Your task to perform on an android device: Turn on the flashlight Image 0: 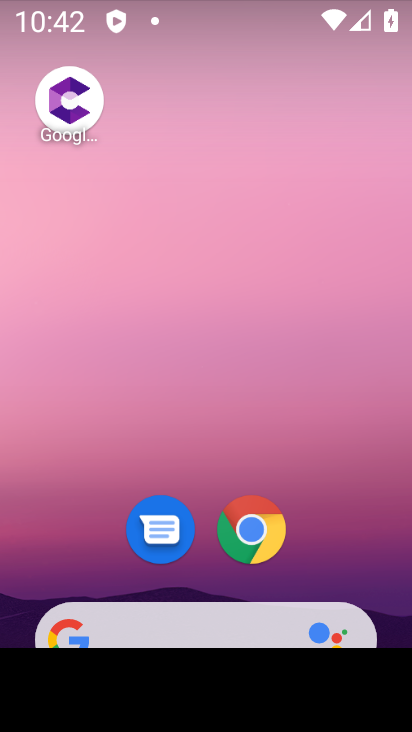
Step 0: drag from (244, 17) to (233, 459)
Your task to perform on an android device: Turn on the flashlight Image 1: 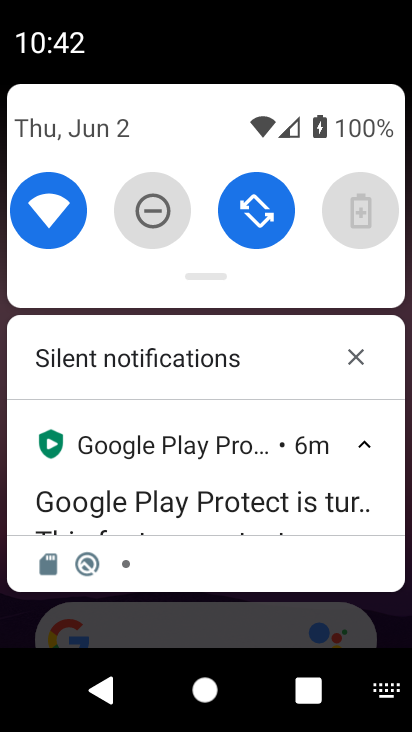
Step 1: drag from (205, 287) to (229, 536)
Your task to perform on an android device: Turn on the flashlight Image 2: 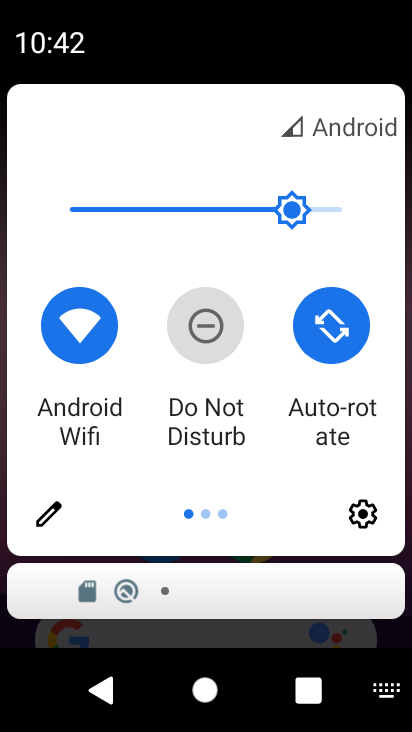
Step 2: click (44, 510)
Your task to perform on an android device: Turn on the flashlight Image 3: 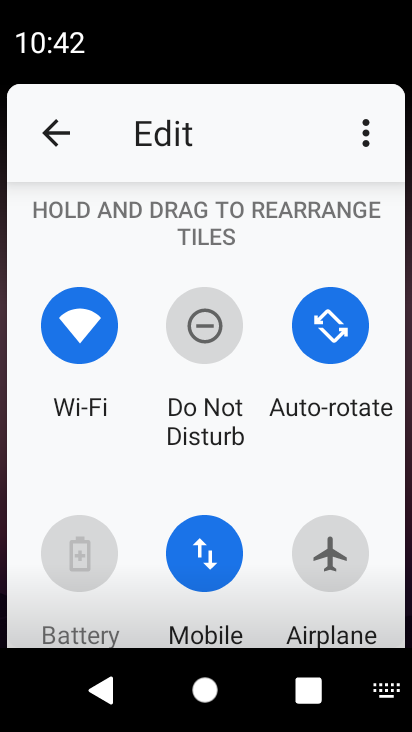
Step 3: task complete